Your task to perform on an android device: change timer sound Image 0: 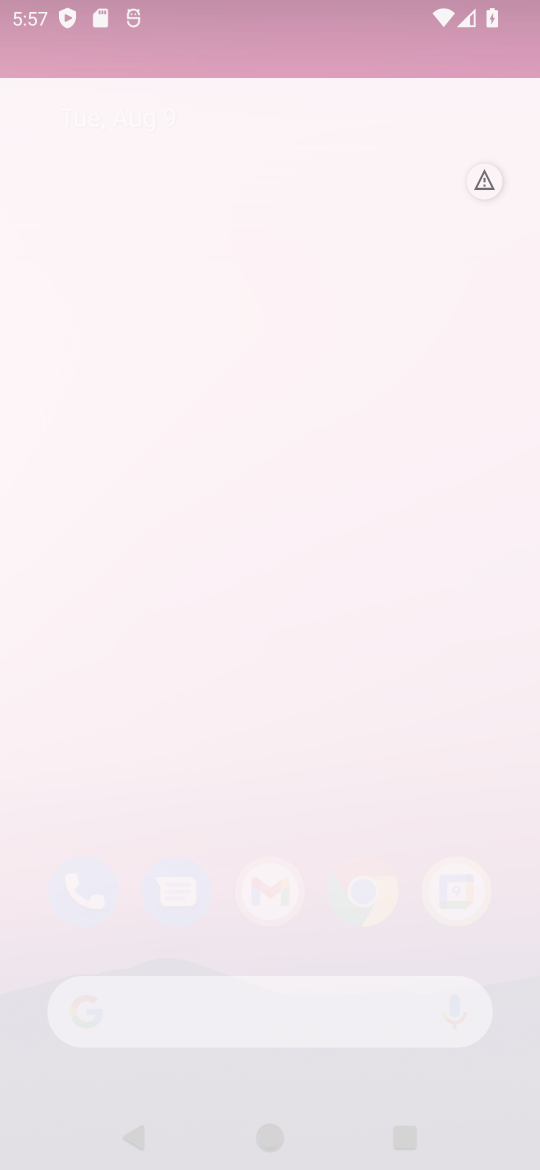
Step 0: press home button
Your task to perform on an android device: change timer sound Image 1: 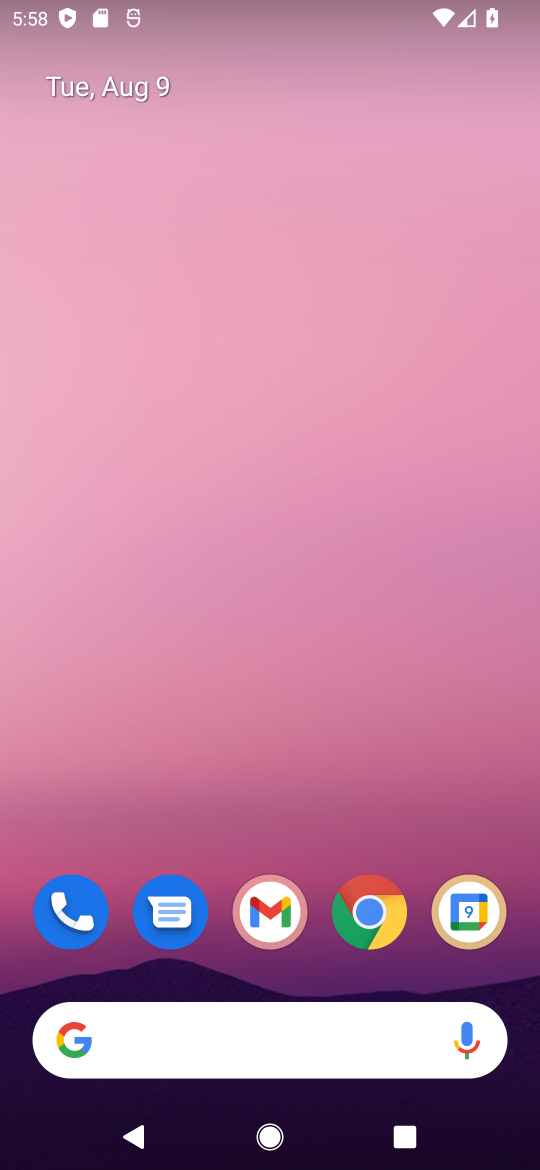
Step 1: drag from (300, 874) to (253, 406)
Your task to perform on an android device: change timer sound Image 2: 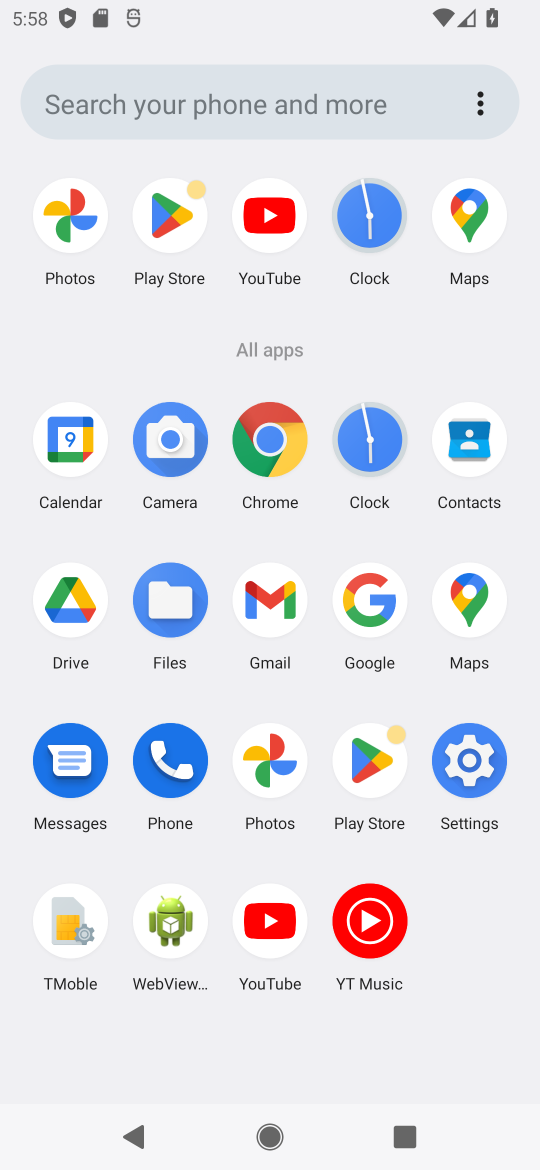
Step 2: click (359, 217)
Your task to perform on an android device: change timer sound Image 3: 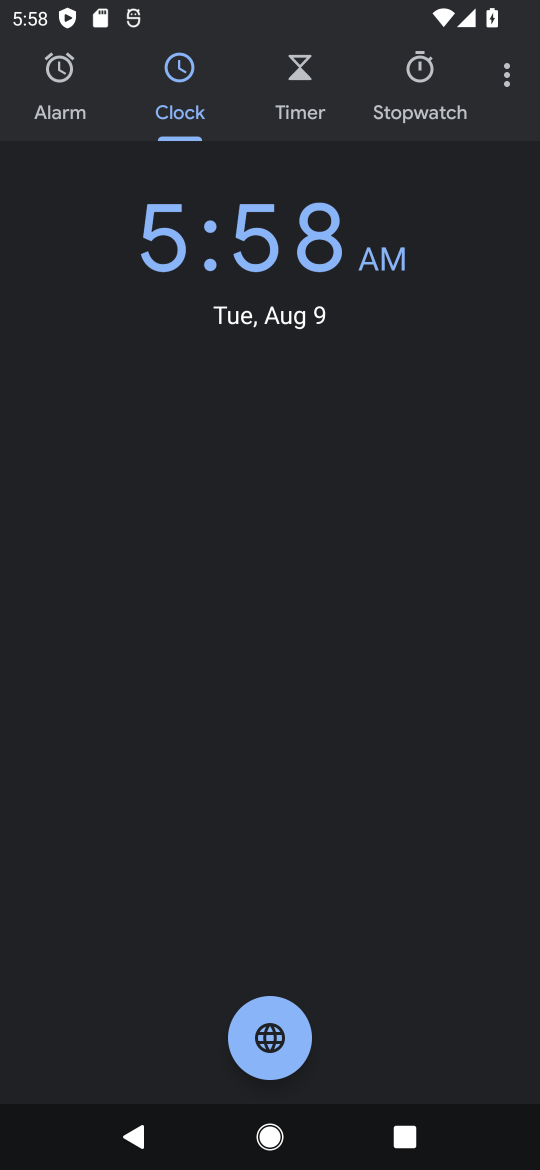
Step 3: click (503, 95)
Your task to perform on an android device: change timer sound Image 4: 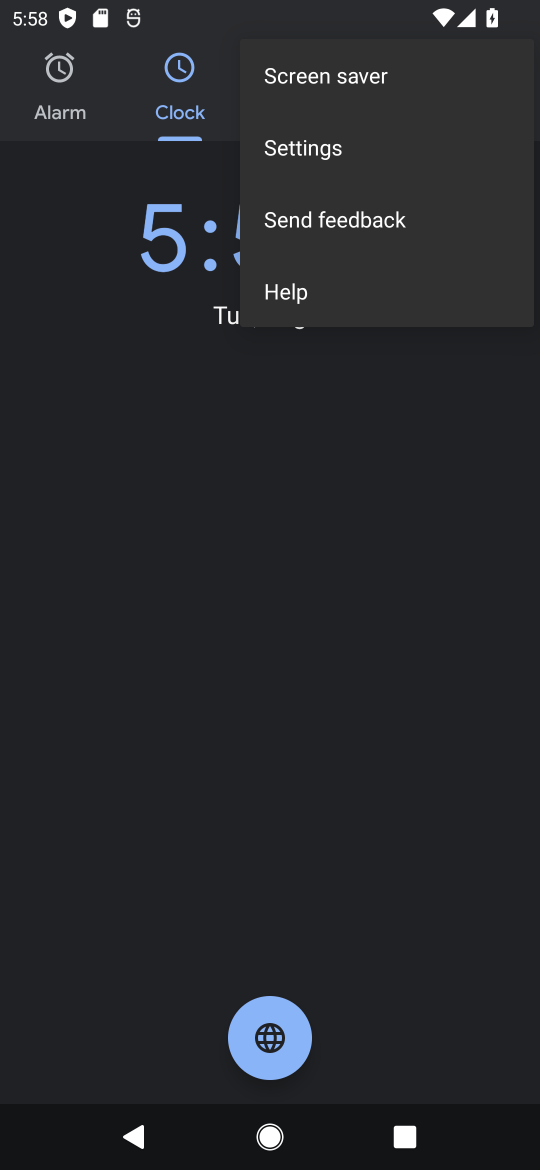
Step 4: click (316, 144)
Your task to perform on an android device: change timer sound Image 5: 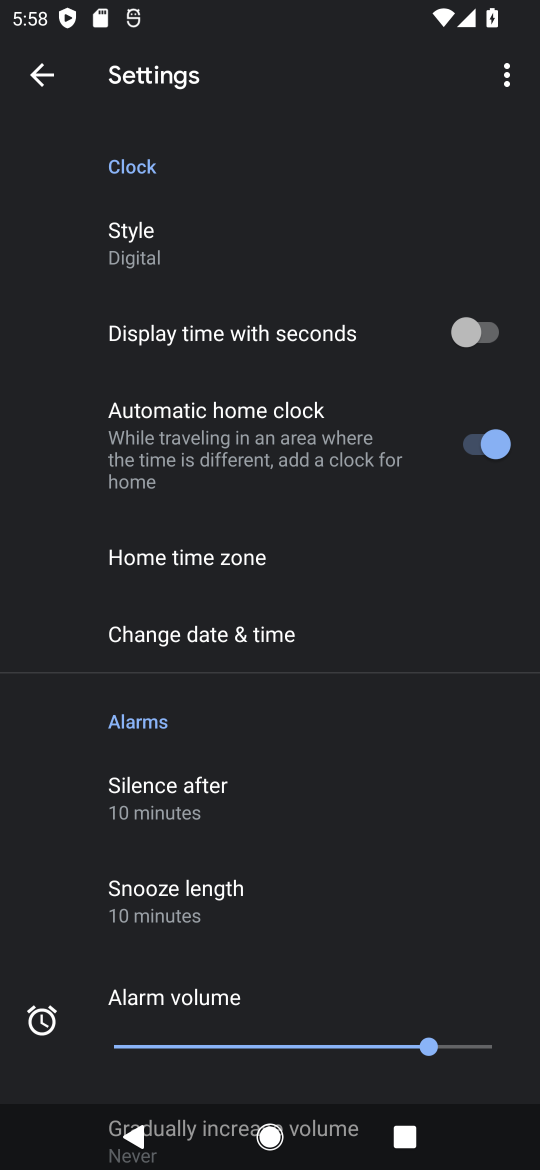
Step 5: drag from (366, 979) to (334, 283)
Your task to perform on an android device: change timer sound Image 6: 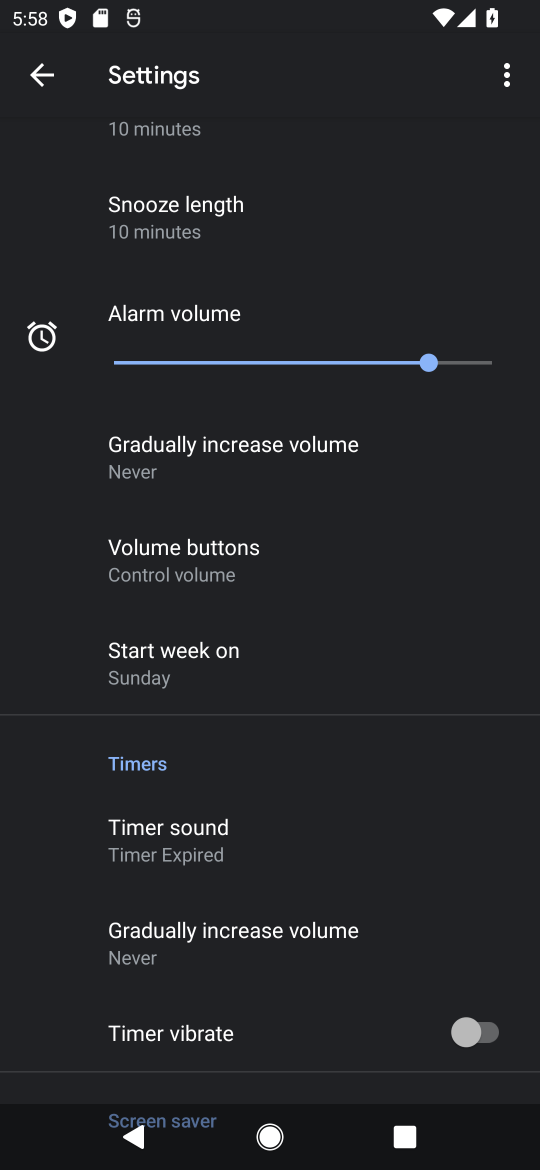
Step 6: click (167, 838)
Your task to perform on an android device: change timer sound Image 7: 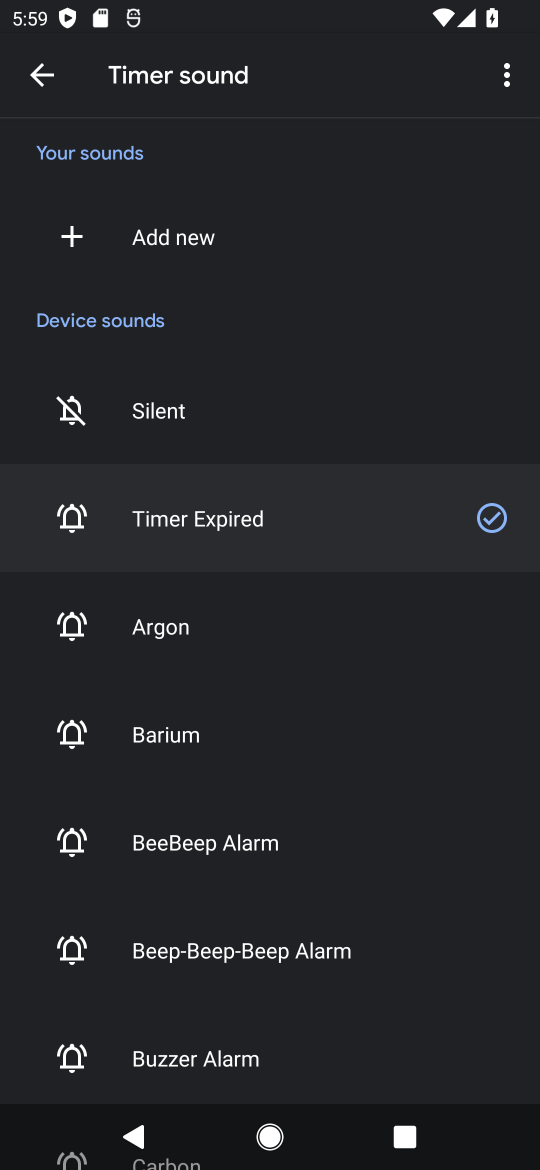
Step 7: click (187, 637)
Your task to perform on an android device: change timer sound Image 8: 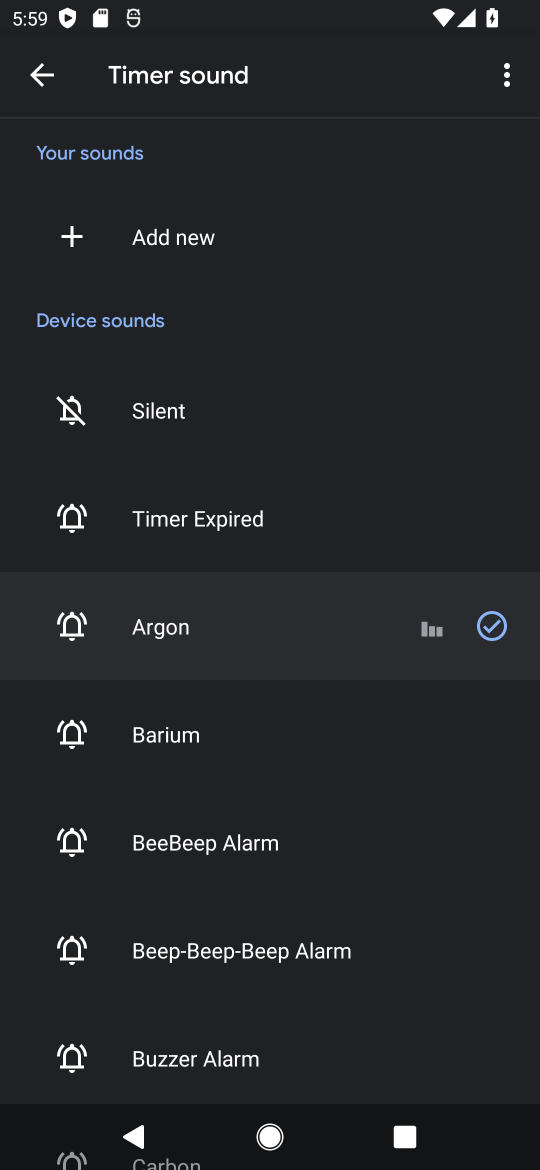
Step 8: task complete